Your task to perform on an android device: Go to Google Image 0: 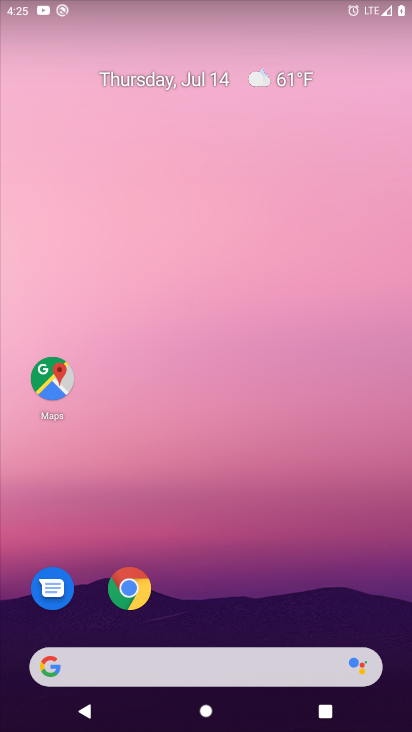
Step 0: press home button
Your task to perform on an android device: Go to Google Image 1: 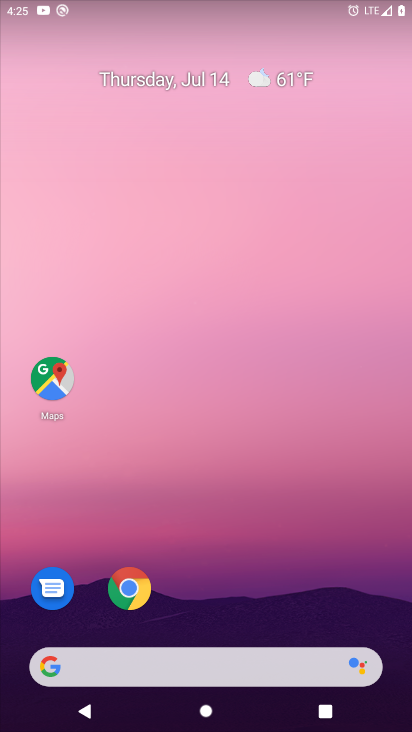
Step 1: click (47, 675)
Your task to perform on an android device: Go to Google Image 2: 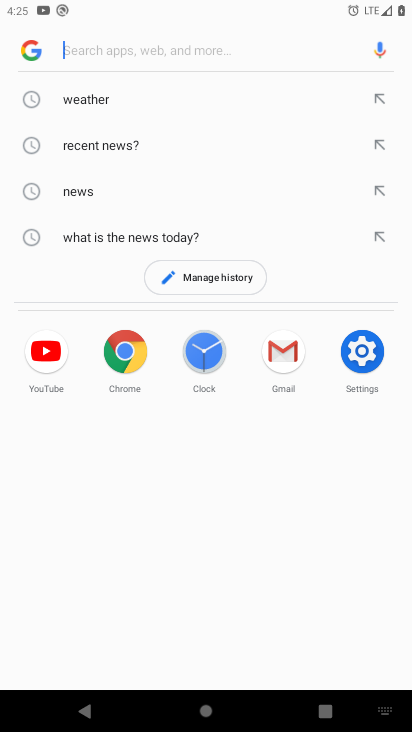
Step 2: task complete